Your task to perform on an android device: Go to battery settings Image 0: 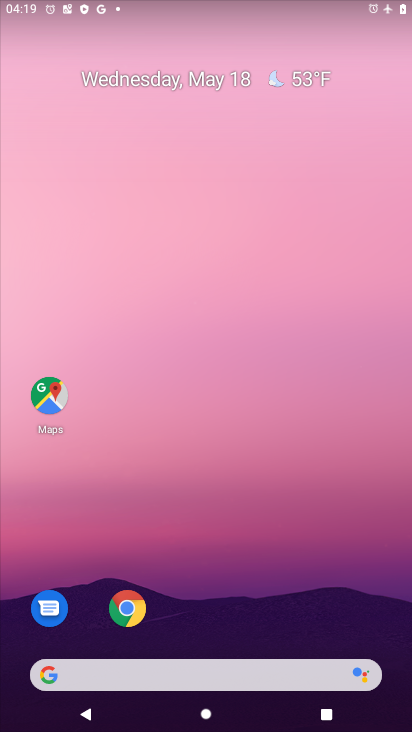
Step 0: drag from (293, 614) to (251, 4)
Your task to perform on an android device: Go to battery settings Image 1: 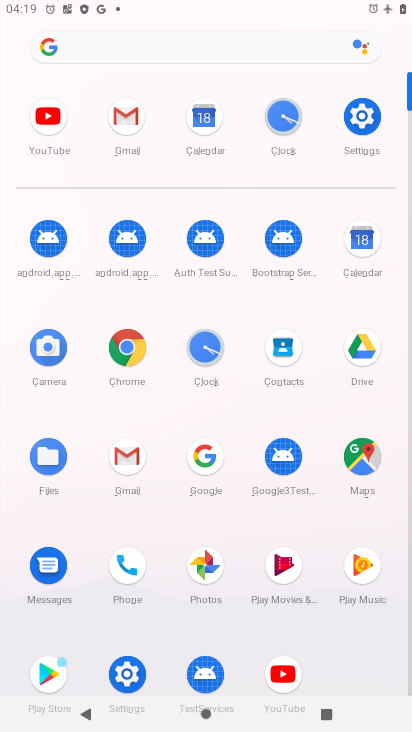
Step 1: click (358, 114)
Your task to perform on an android device: Go to battery settings Image 2: 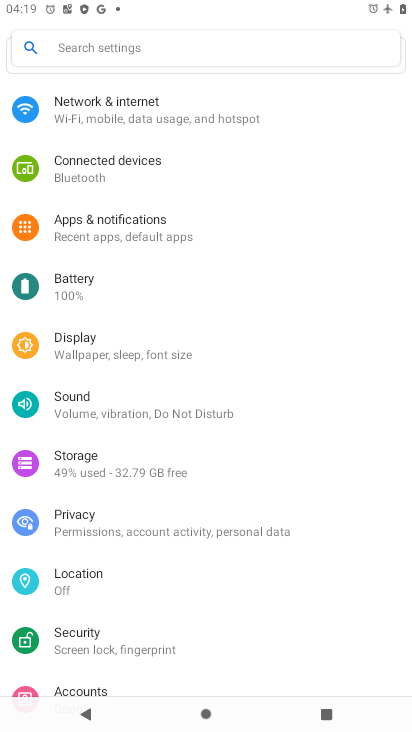
Step 2: click (71, 283)
Your task to perform on an android device: Go to battery settings Image 3: 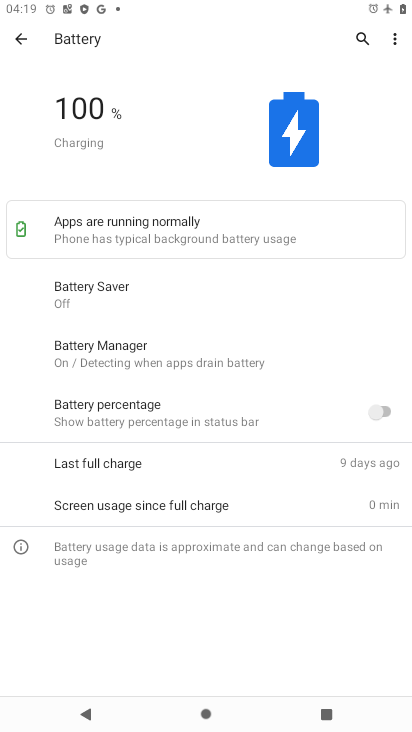
Step 3: task complete